Your task to perform on an android device: Open Yahoo.com Image 0: 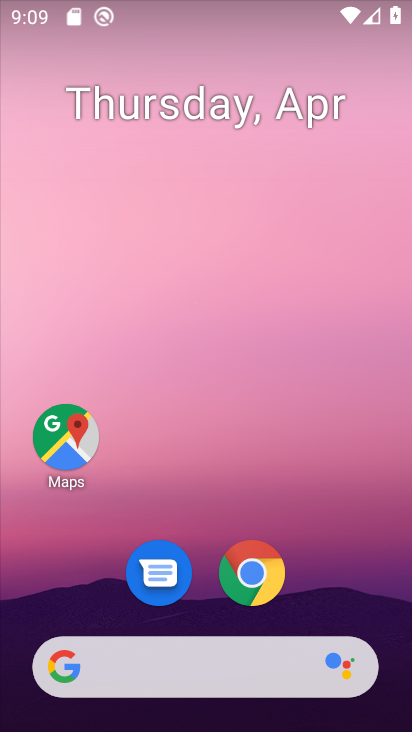
Step 0: drag from (300, 555) to (158, 83)
Your task to perform on an android device: Open Yahoo.com Image 1: 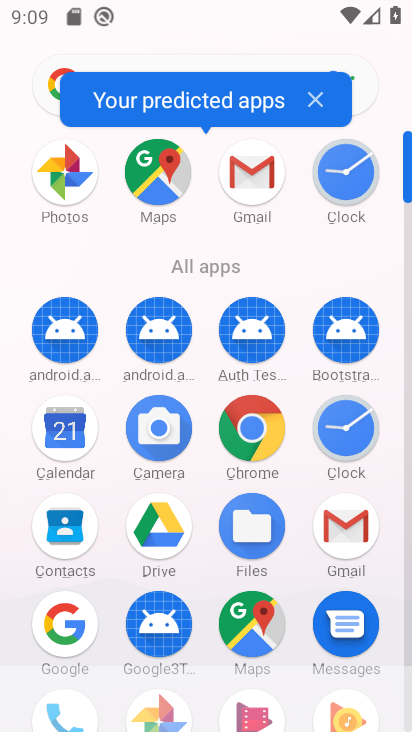
Step 1: click (250, 420)
Your task to perform on an android device: Open Yahoo.com Image 2: 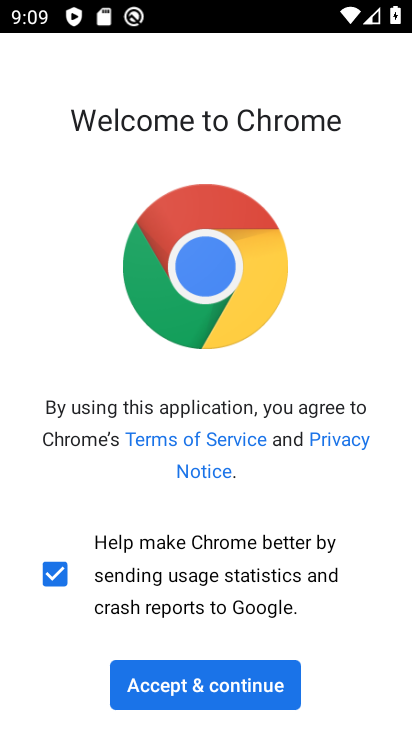
Step 2: click (235, 678)
Your task to perform on an android device: Open Yahoo.com Image 3: 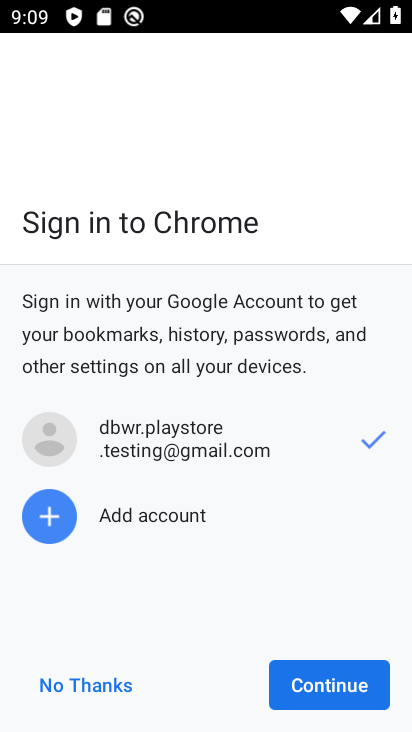
Step 3: click (315, 686)
Your task to perform on an android device: Open Yahoo.com Image 4: 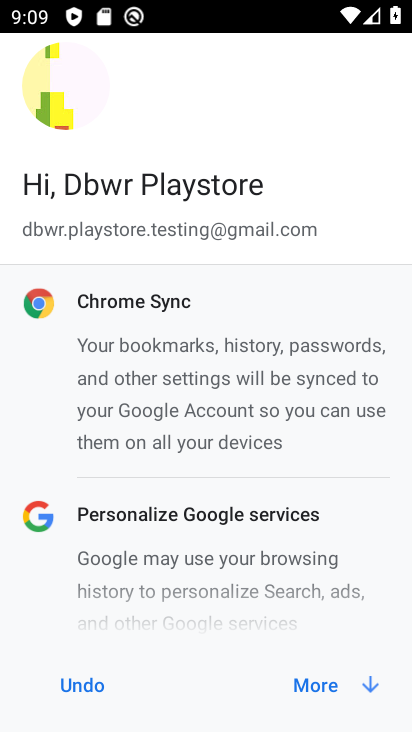
Step 4: click (314, 686)
Your task to perform on an android device: Open Yahoo.com Image 5: 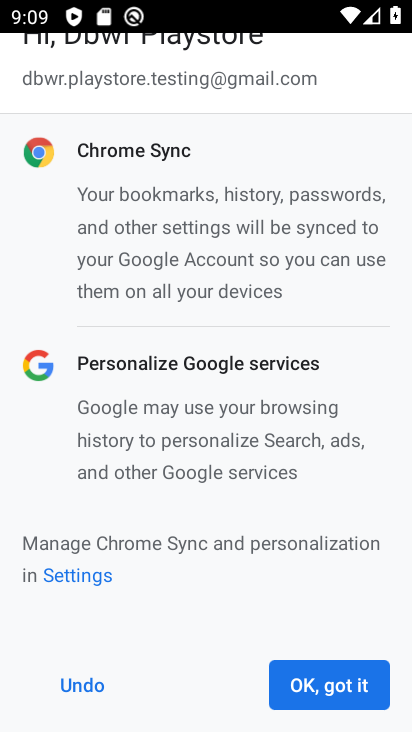
Step 5: click (314, 686)
Your task to perform on an android device: Open Yahoo.com Image 6: 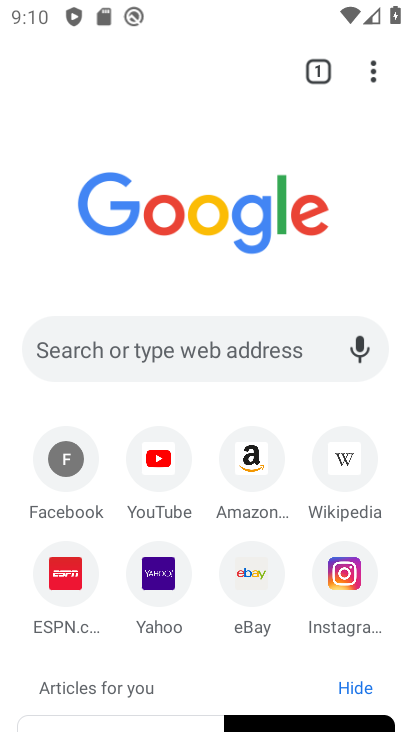
Step 6: click (172, 576)
Your task to perform on an android device: Open Yahoo.com Image 7: 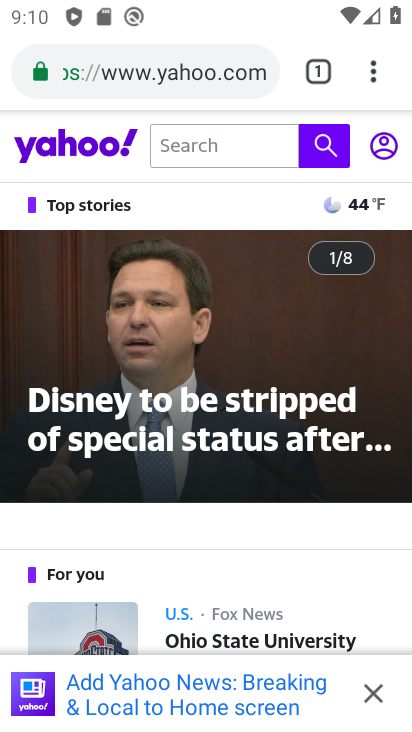
Step 7: task complete